Your task to perform on an android device: Show me the alarms in the clock app Image 0: 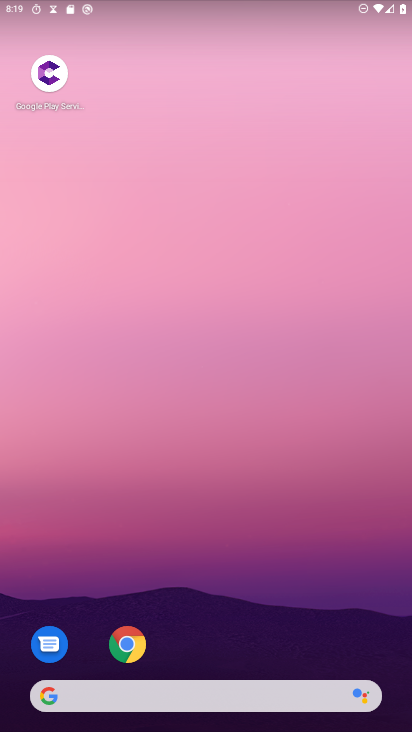
Step 0: drag from (216, 608) to (216, 305)
Your task to perform on an android device: Show me the alarms in the clock app Image 1: 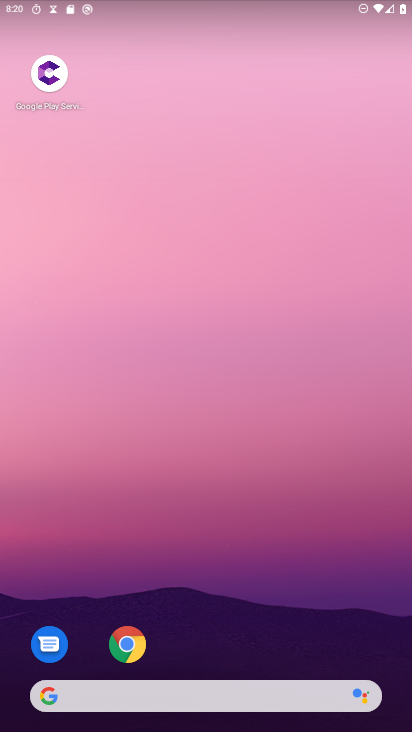
Step 1: drag from (251, 683) to (256, 277)
Your task to perform on an android device: Show me the alarms in the clock app Image 2: 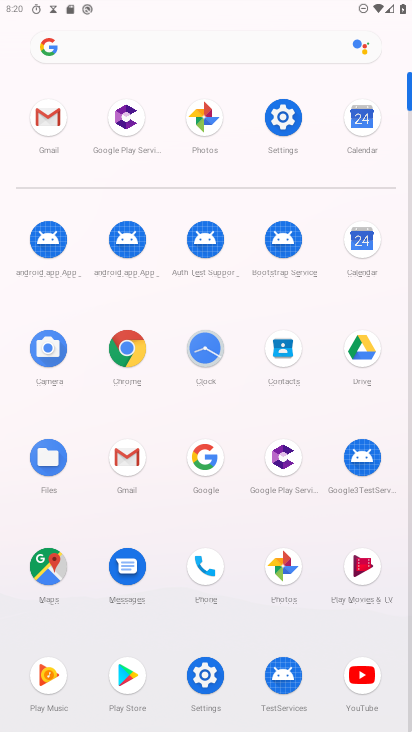
Step 2: click (200, 350)
Your task to perform on an android device: Show me the alarms in the clock app Image 3: 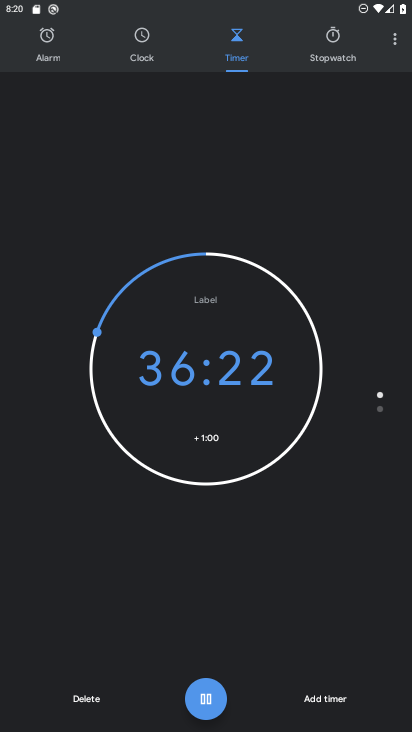
Step 3: click (45, 48)
Your task to perform on an android device: Show me the alarms in the clock app Image 4: 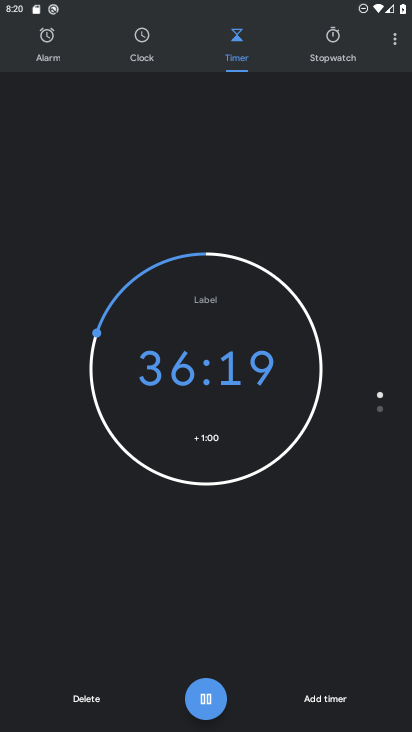
Step 4: click (45, 48)
Your task to perform on an android device: Show me the alarms in the clock app Image 5: 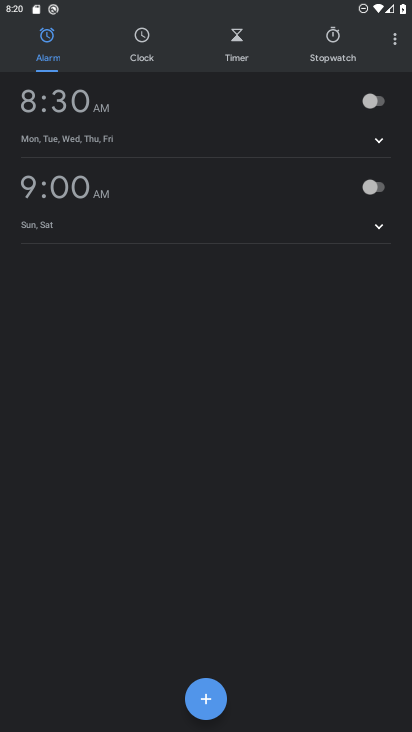
Step 5: task complete